Your task to perform on an android device: toggle sleep mode Image 0: 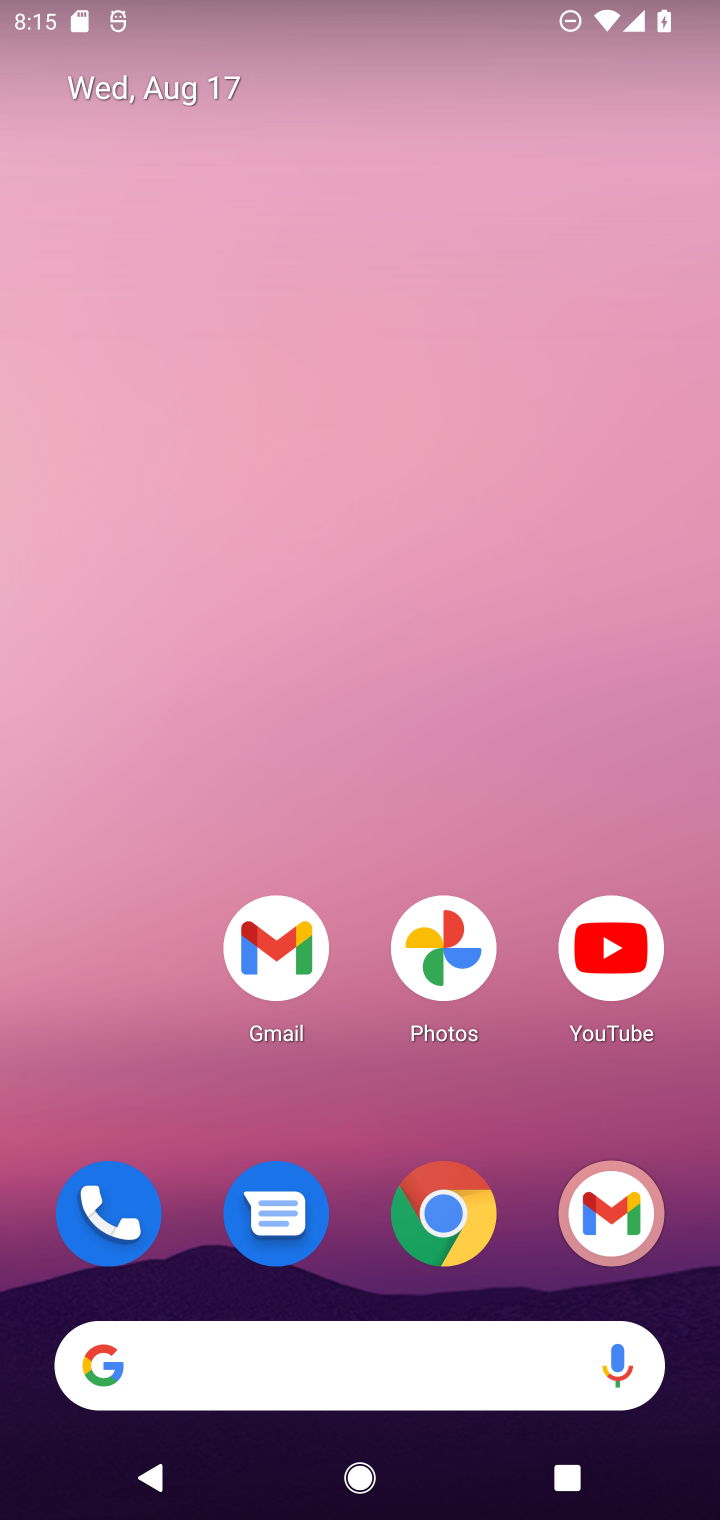
Step 0: drag from (359, 1282) to (365, 184)
Your task to perform on an android device: toggle sleep mode Image 1: 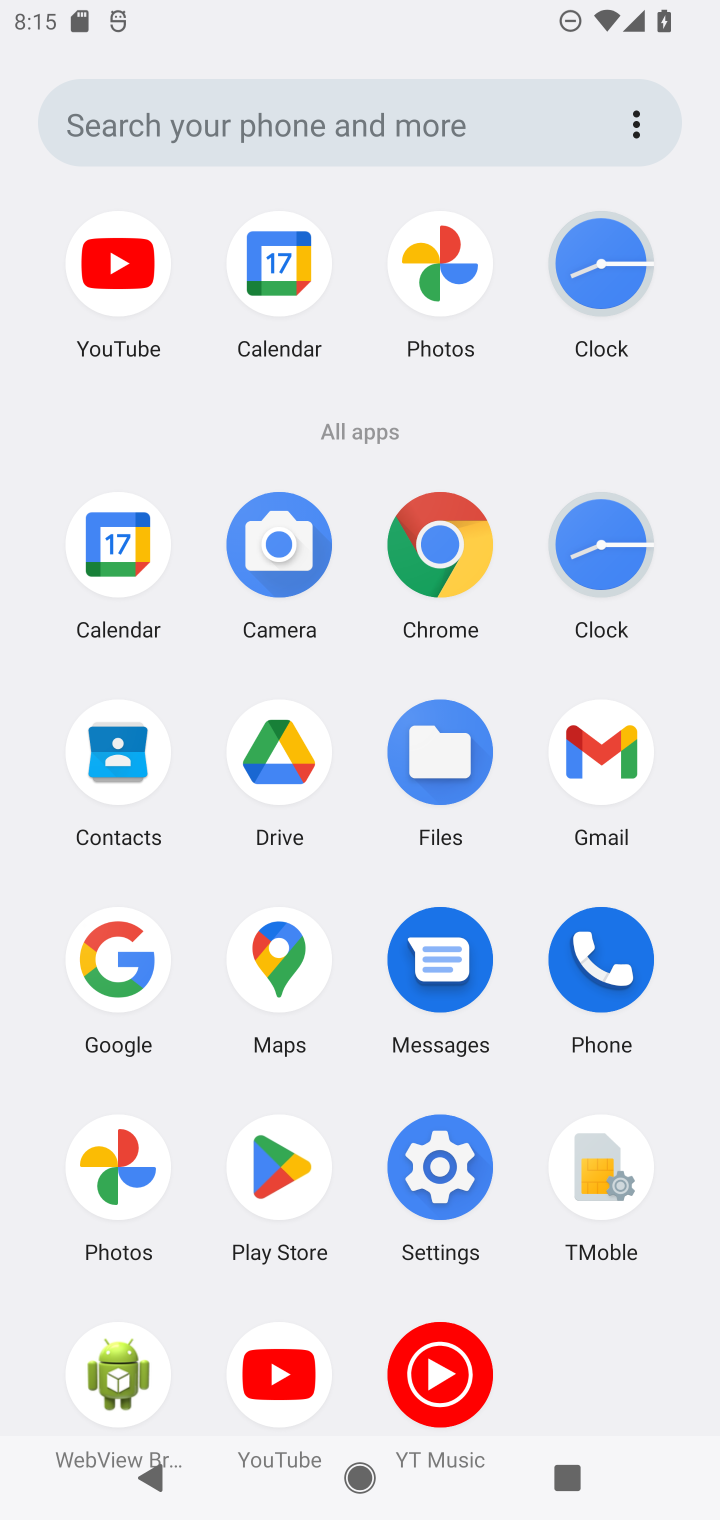
Step 1: click (449, 1160)
Your task to perform on an android device: toggle sleep mode Image 2: 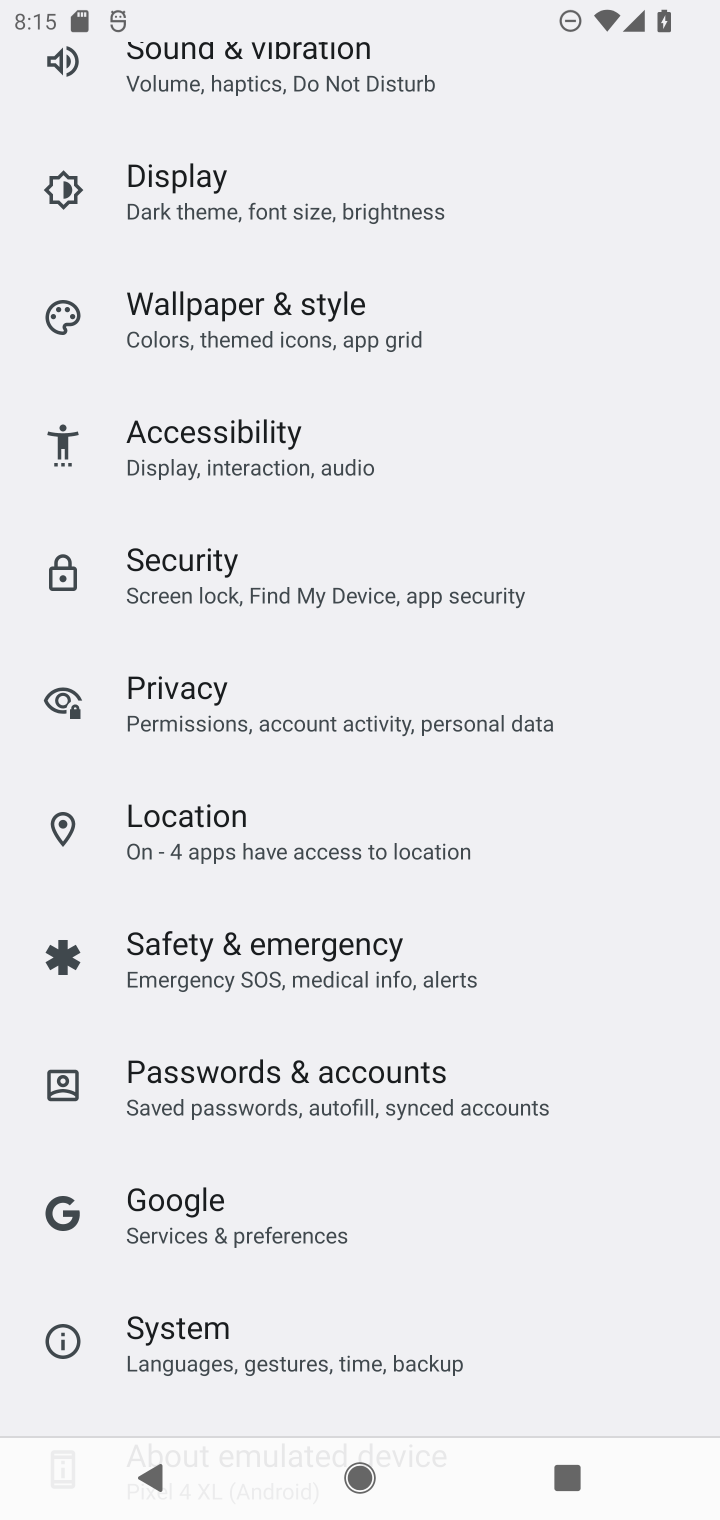
Step 2: drag from (396, 357) to (362, 1000)
Your task to perform on an android device: toggle sleep mode Image 3: 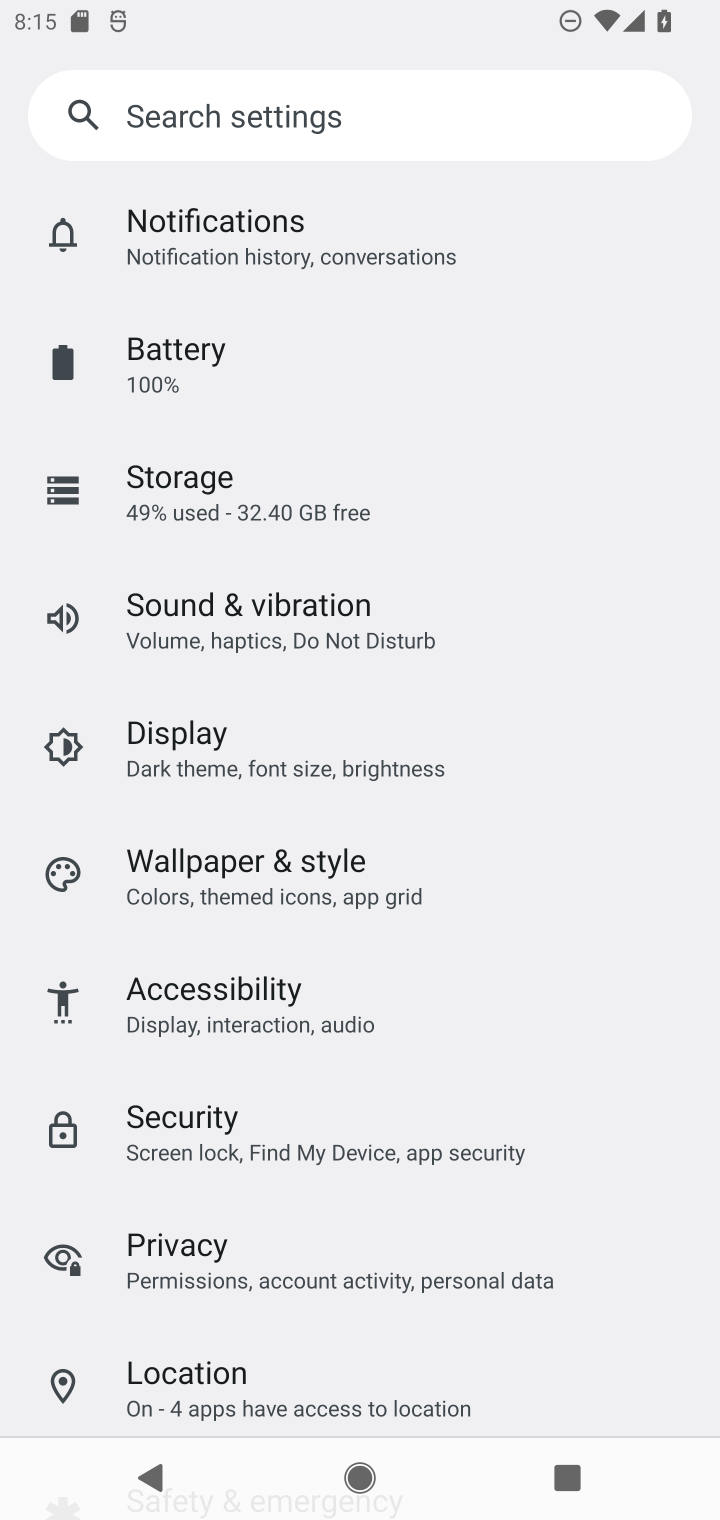
Step 3: drag from (378, 385) to (399, 1238)
Your task to perform on an android device: toggle sleep mode Image 4: 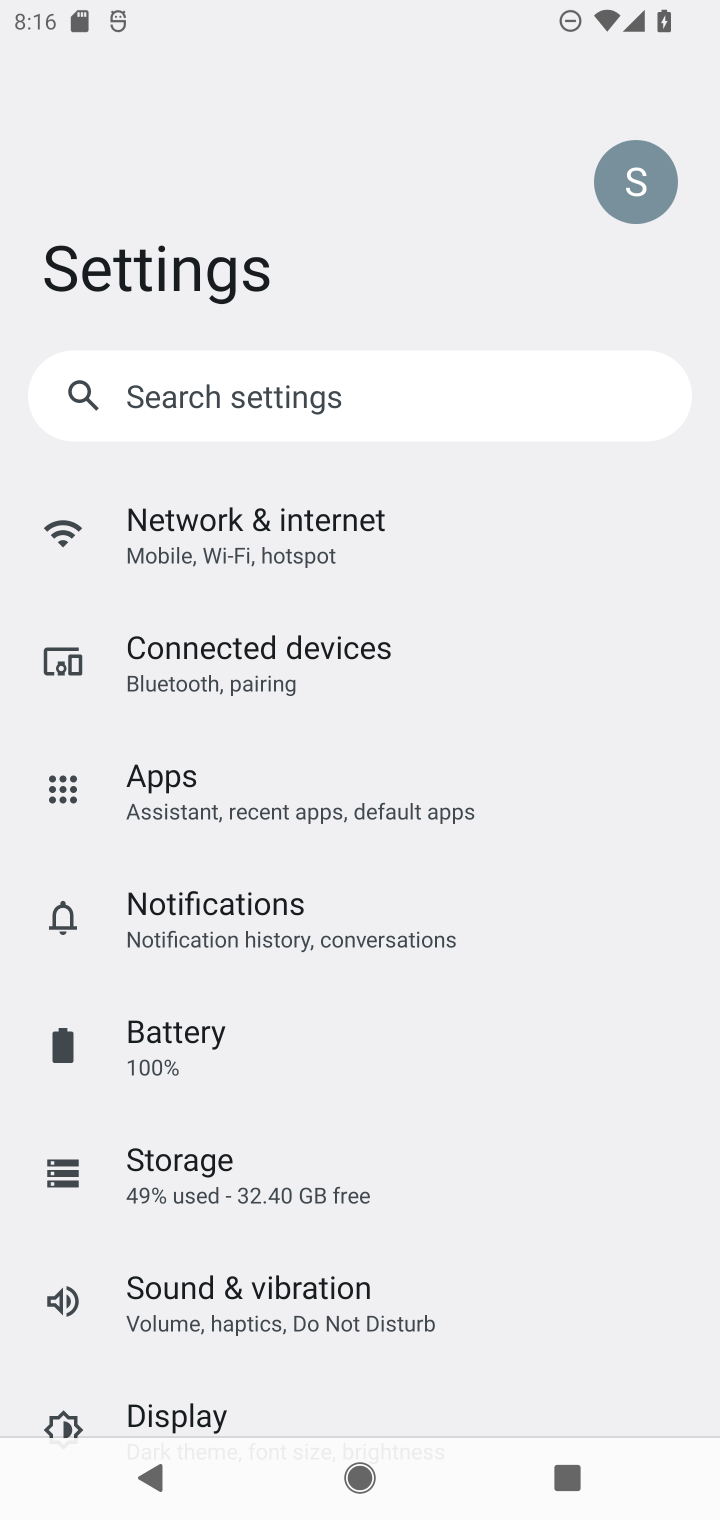
Step 4: click (505, 1328)
Your task to perform on an android device: toggle sleep mode Image 5: 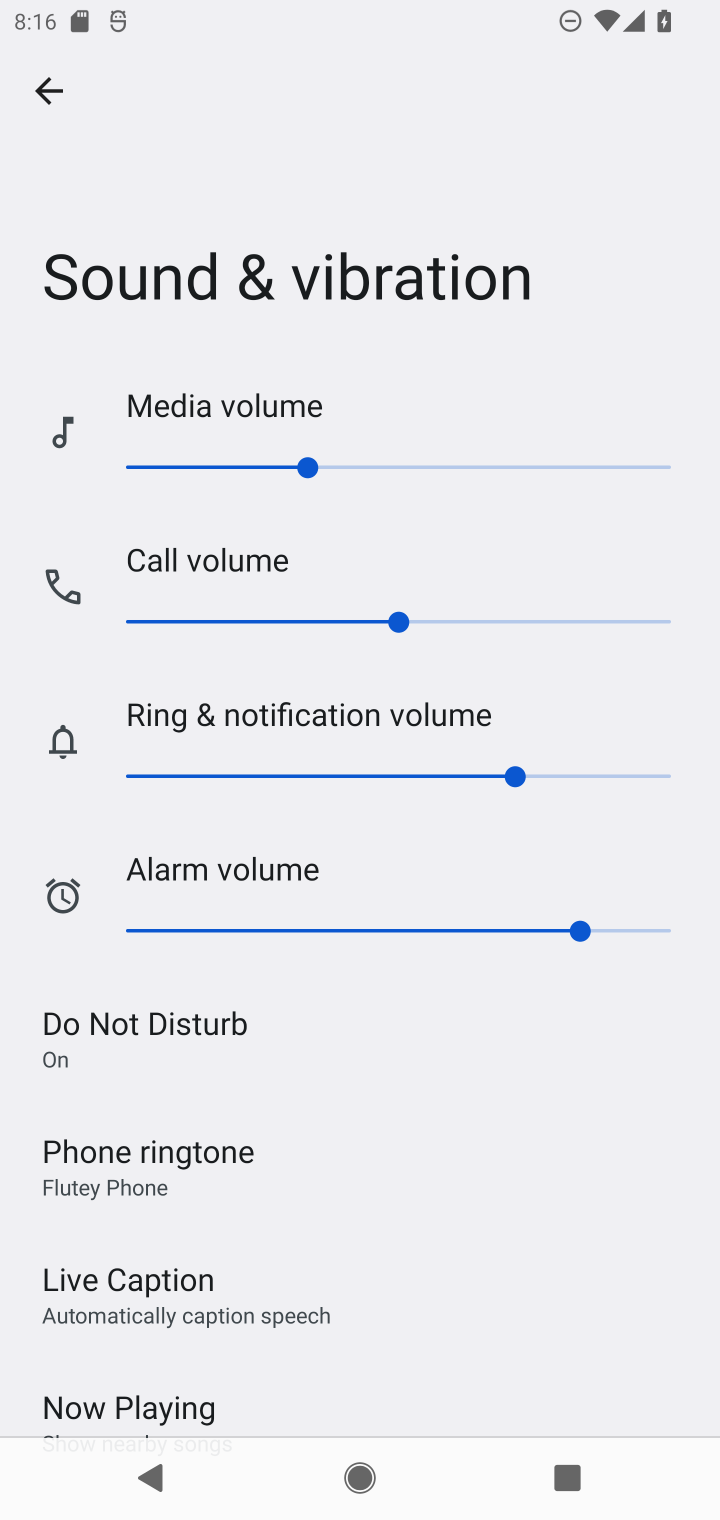
Step 5: task complete